Your task to perform on an android device: open app "TextNow: Call + Text Unlimited" (install if not already installed) and enter user name: "stoke@yahoo.com" and password: "prompted" Image 0: 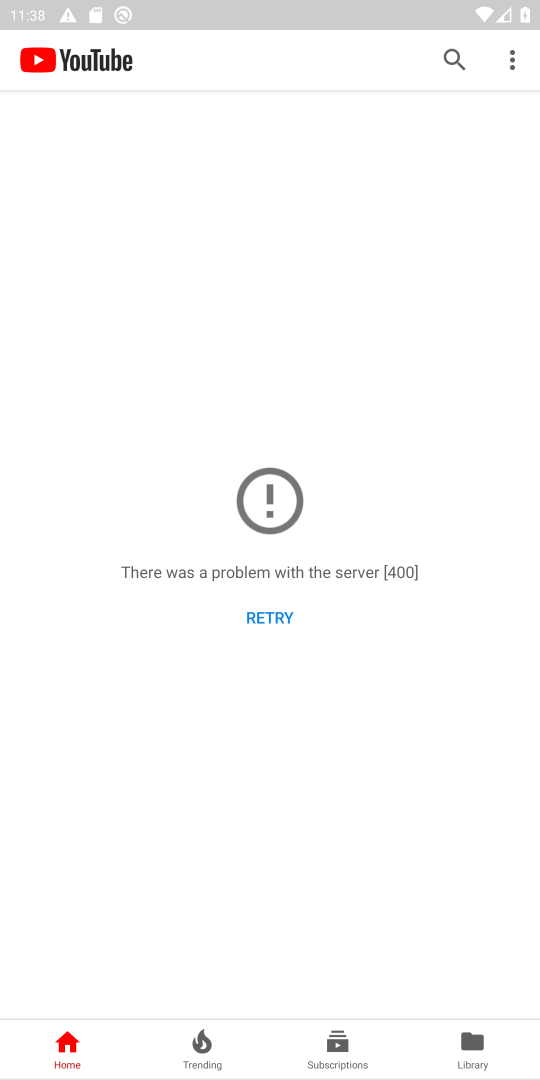
Step 0: press home button
Your task to perform on an android device: open app "TextNow: Call + Text Unlimited" (install if not already installed) and enter user name: "stoke@yahoo.com" and password: "prompted" Image 1: 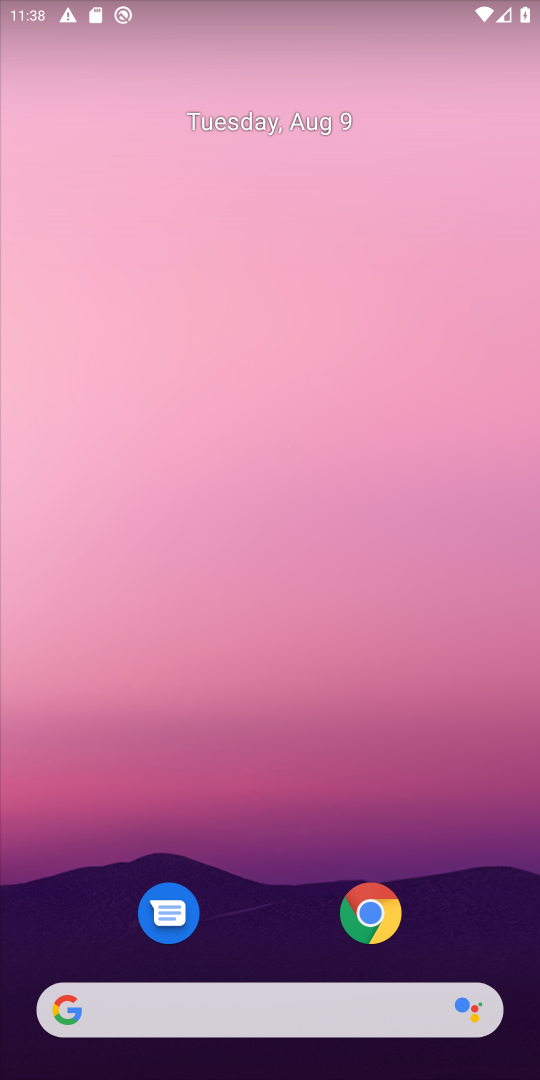
Step 1: drag from (249, 889) to (380, 288)
Your task to perform on an android device: open app "TextNow: Call + Text Unlimited" (install if not already installed) and enter user name: "stoke@yahoo.com" and password: "prompted" Image 2: 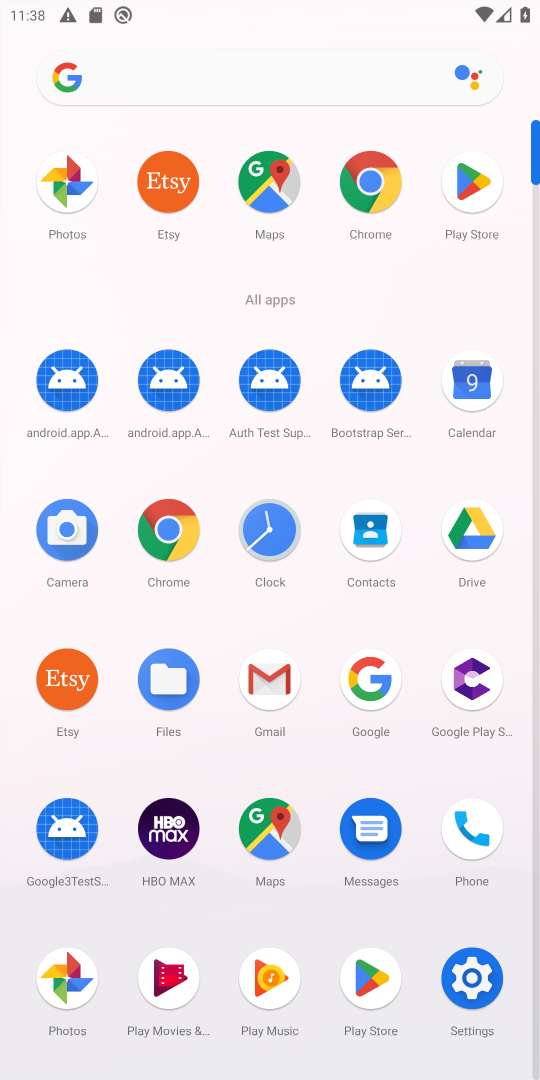
Step 2: click (370, 990)
Your task to perform on an android device: open app "TextNow: Call + Text Unlimited" (install if not already installed) and enter user name: "stoke@yahoo.com" and password: "prompted" Image 3: 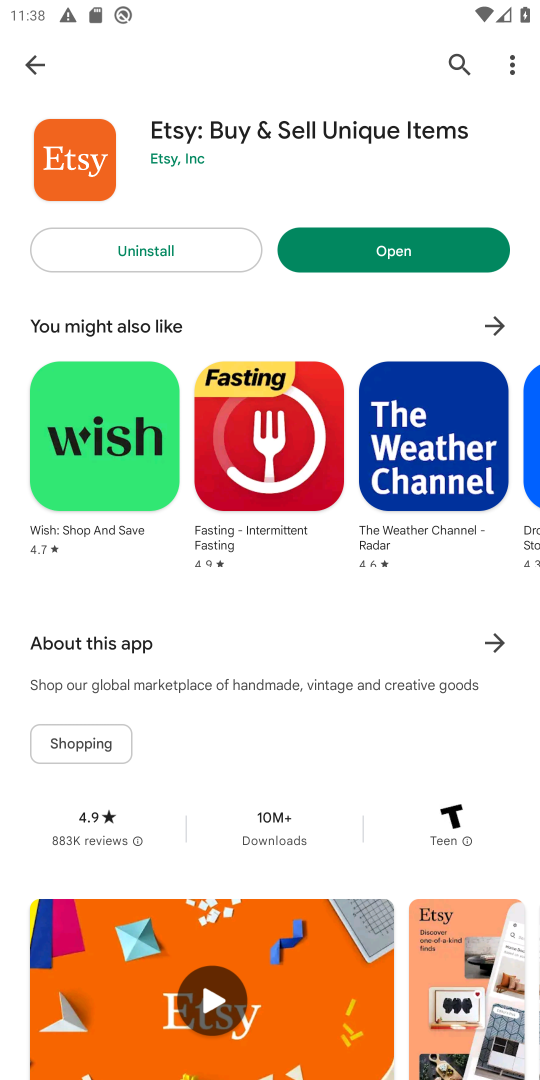
Step 3: click (27, 60)
Your task to perform on an android device: open app "TextNow: Call + Text Unlimited" (install if not already installed) and enter user name: "stoke@yahoo.com" and password: "prompted" Image 4: 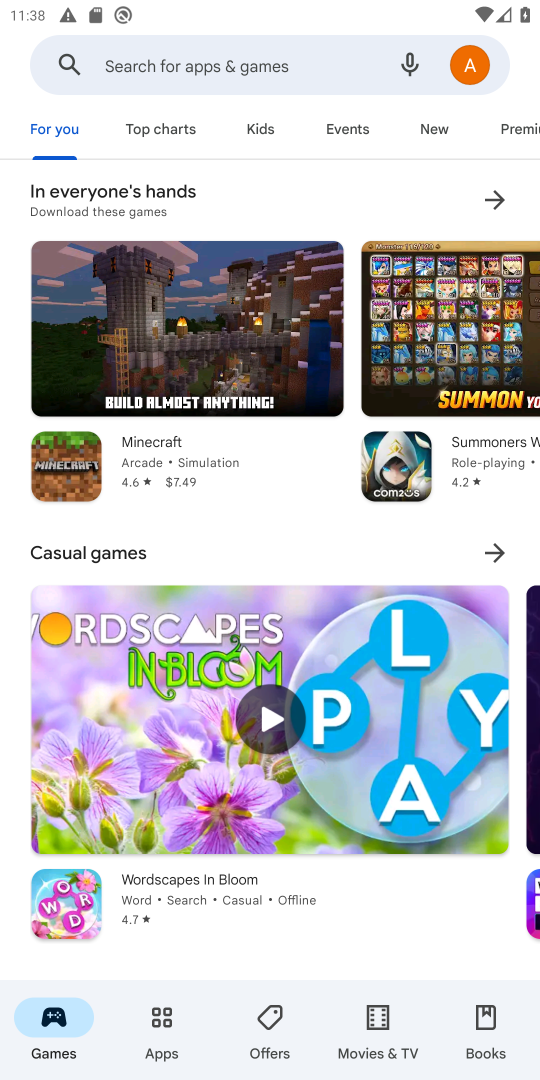
Step 4: click (223, 43)
Your task to perform on an android device: open app "TextNow: Call + Text Unlimited" (install if not already installed) and enter user name: "stoke@yahoo.com" and password: "prompted" Image 5: 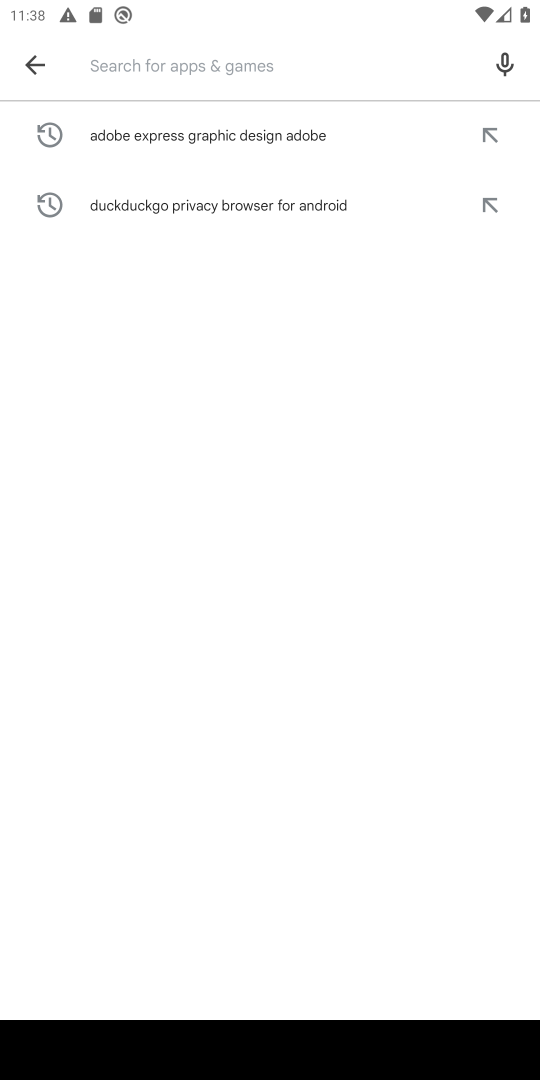
Step 5: type "TextNow: Call + Text Unlimited "
Your task to perform on an android device: open app "TextNow: Call + Text Unlimited" (install if not already installed) and enter user name: "stoke@yahoo.com" and password: "prompted" Image 6: 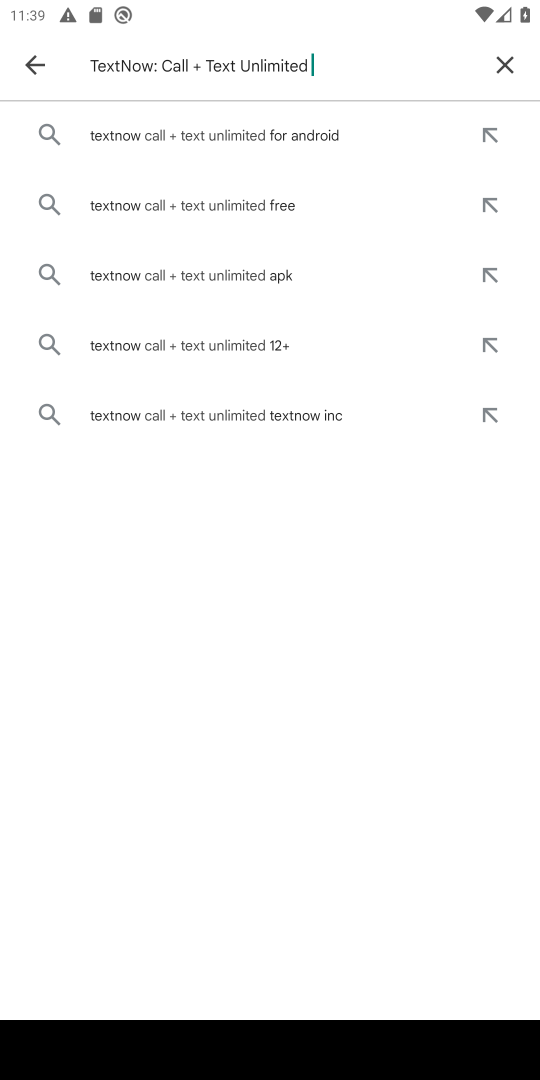
Step 6: click (196, 129)
Your task to perform on an android device: open app "TextNow: Call + Text Unlimited" (install if not already installed) and enter user name: "stoke@yahoo.com" and password: "prompted" Image 7: 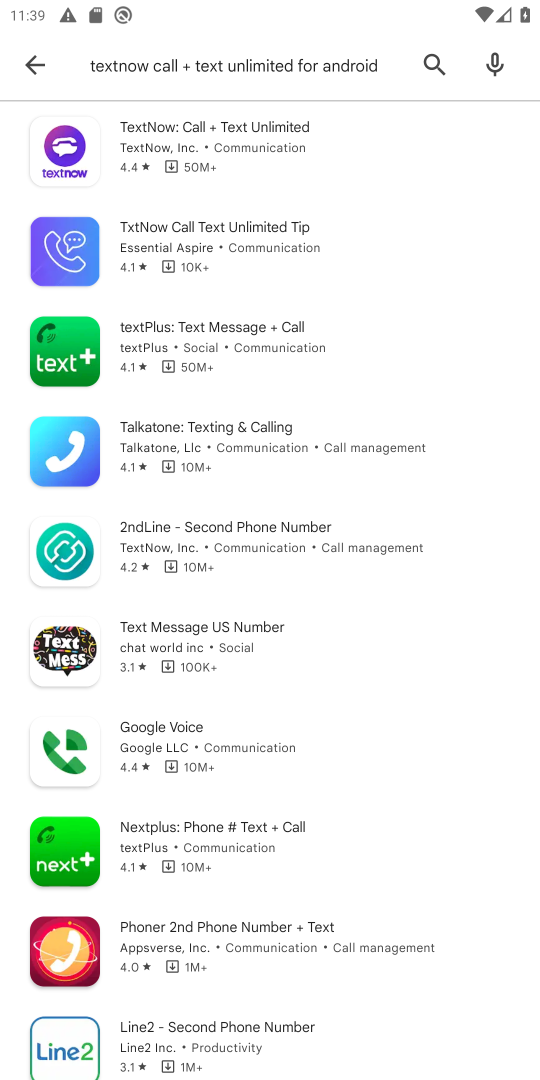
Step 7: click (190, 129)
Your task to perform on an android device: open app "TextNow: Call + Text Unlimited" (install if not already installed) and enter user name: "stoke@yahoo.com" and password: "prompted" Image 8: 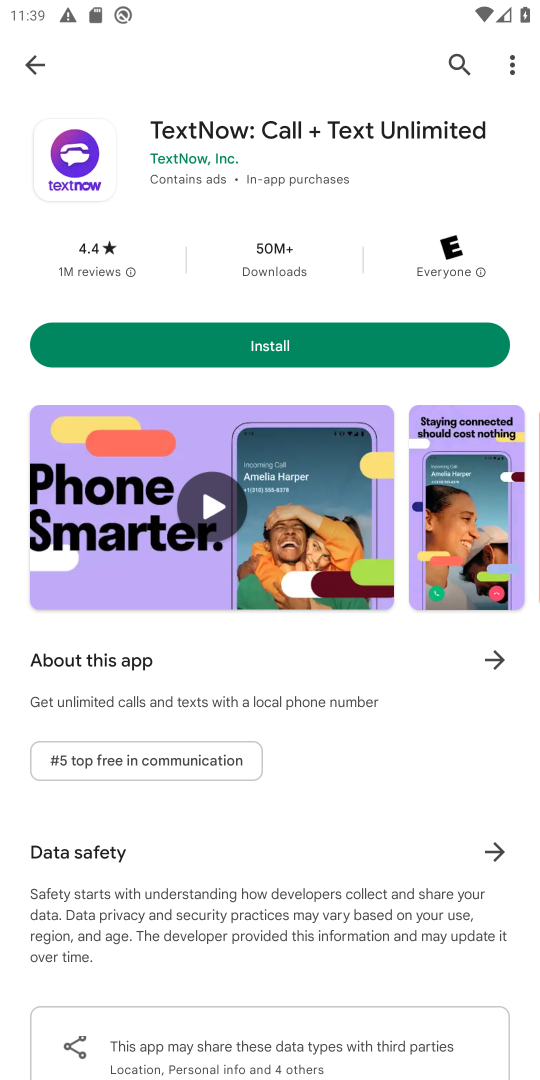
Step 8: click (280, 343)
Your task to perform on an android device: open app "TextNow: Call + Text Unlimited" (install if not already installed) and enter user name: "stoke@yahoo.com" and password: "prompted" Image 9: 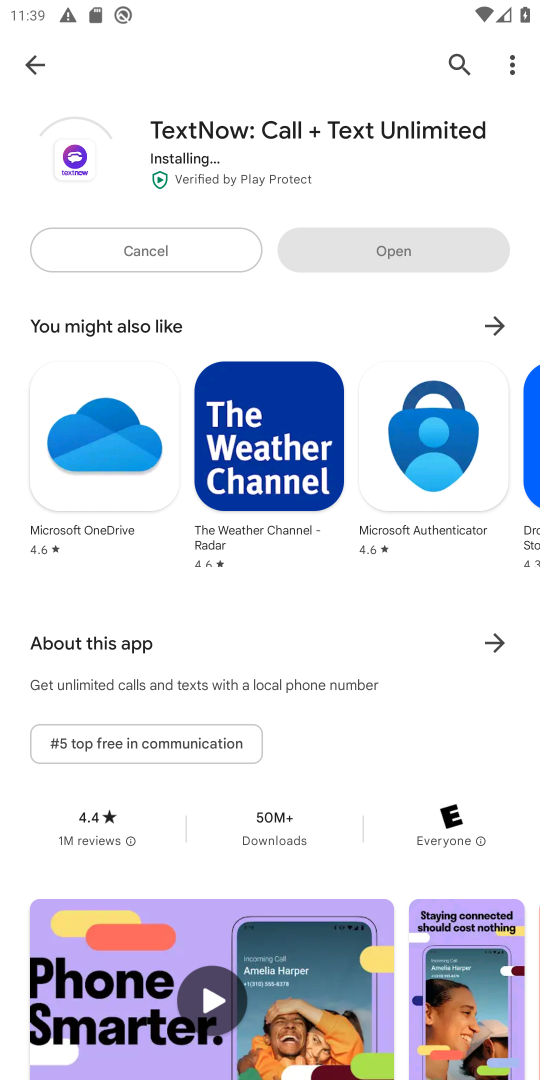
Step 9: task complete